Your task to perform on an android device: Is it going to rain today? Image 0: 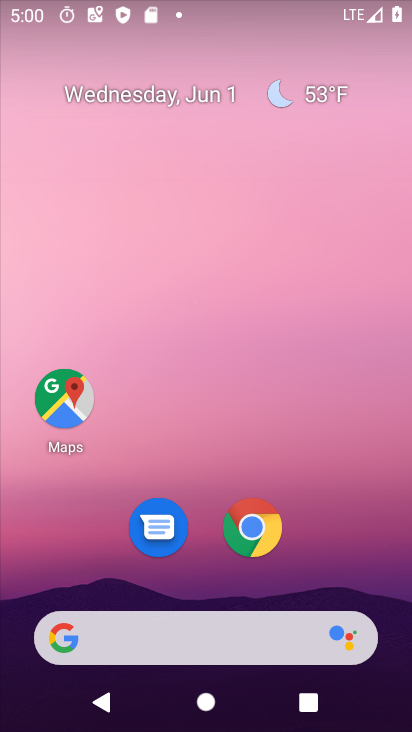
Step 0: drag from (317, 562) to (339, 253)
Your task to perform on an android device: Is it going to rain today? Image 1: 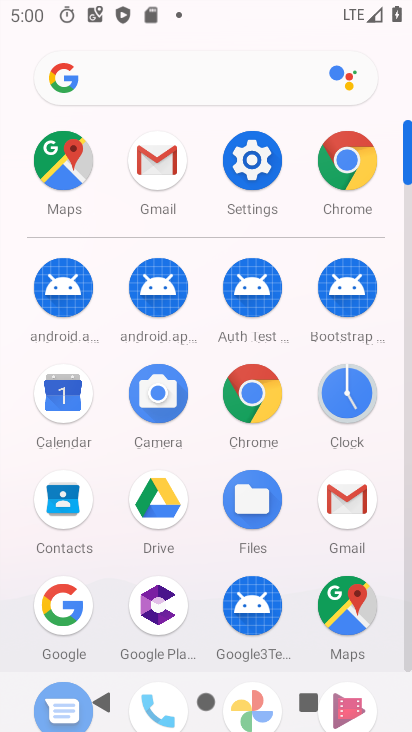
Step 1: click (251, 392)
Your task to perform on an android device: Is it going to rain today? Image 2: 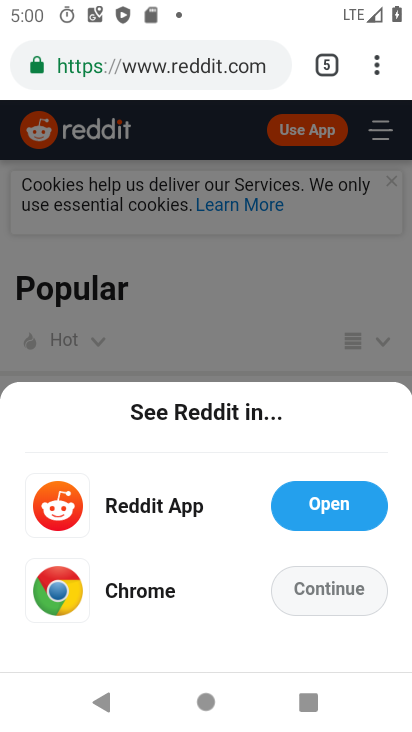
Step 2: click (195, 61)
Your task to perform on an android device: Is it going to rain today? Image 3: 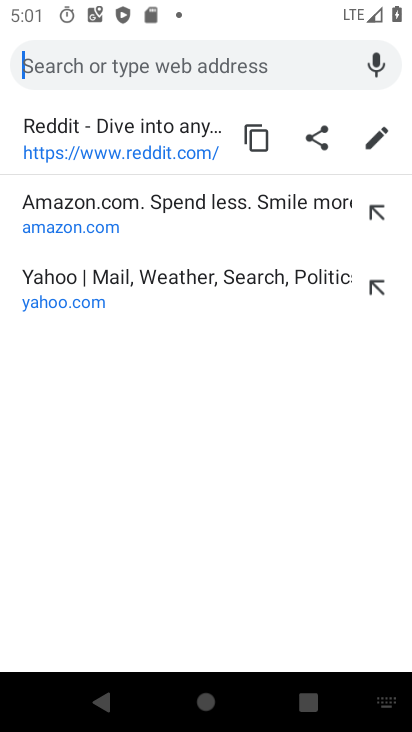
Step 3: type "Is it going to rain today?"
Your task to perform on an android device: Is it going to rain today? Image 4: 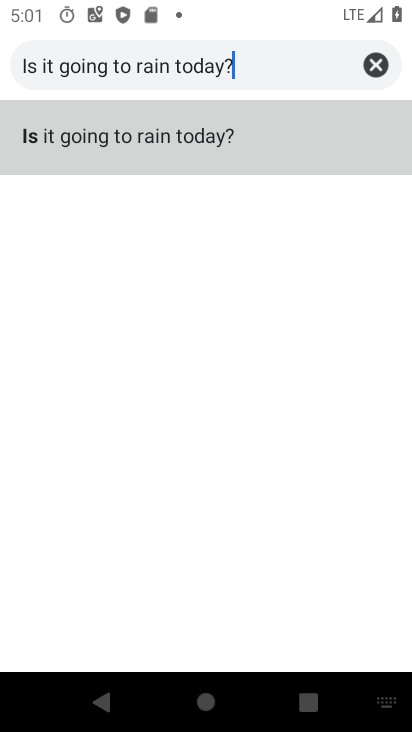
Step 4: click (142, 142)
Your task to perform on an android device: Is it going to rain today? Image 5: 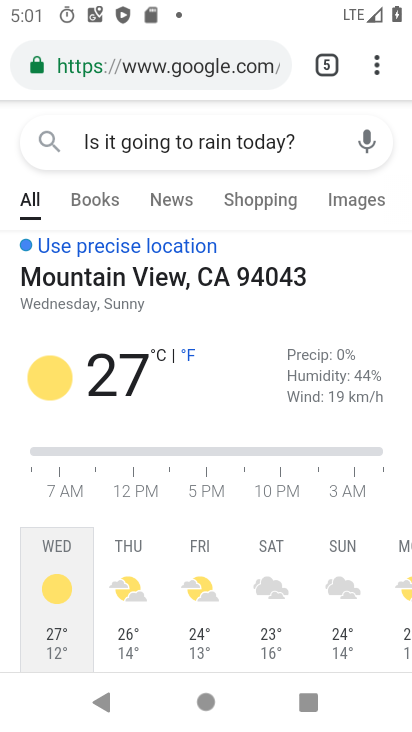
Step 5: task complete